Your task to perform on an android device: Search for flights from Buenos aires to Helsinki Image 0: 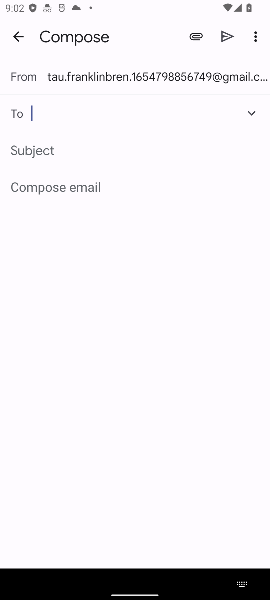
Step 0: press home button
Your task to perform on an android device: Search for flights from Buenos aires to Helsinki Image 1: 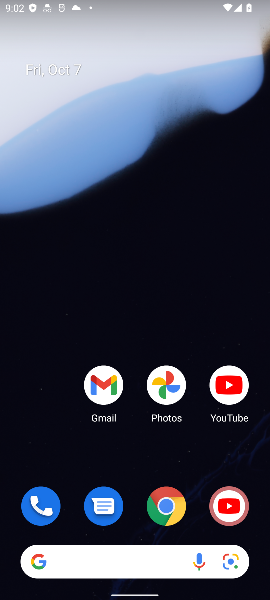
Step 1: click (170, 504)
Your task to perform on an android device: Search for flights from Buenos aires to Helsinki Image 2: 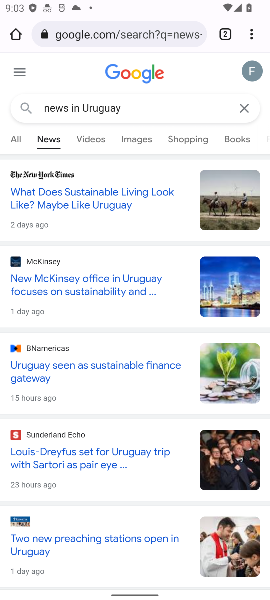
Step 2: click (181, 30)
Your task to perform on an android device: Search for flights from Buenos aires to Helsinki Image 3: 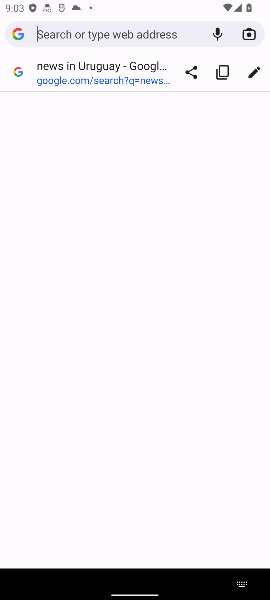
Step 3: type "flights from Buenos aires to Helsinki"
Your task to perform on an android device: Search for flights from Buenos aires to Helsinki Image 4: 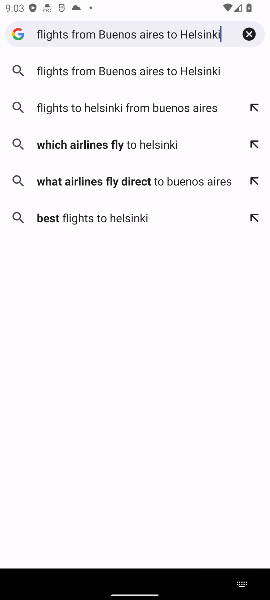
Step 4: click (95, 71)
Your task to perform on an android device: Search for flights from Buenos aires to Helsinki Image 5: 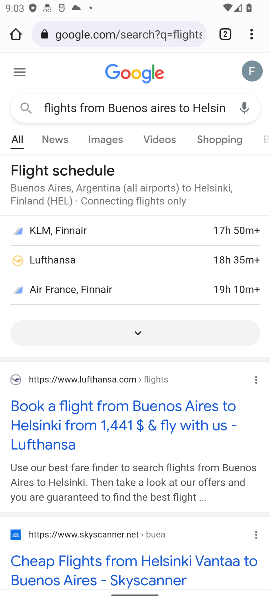
Step 5: click (137, 328)
Your task to perform on an android device: Search for flights from Buenos aires to Helsinki Image 6: 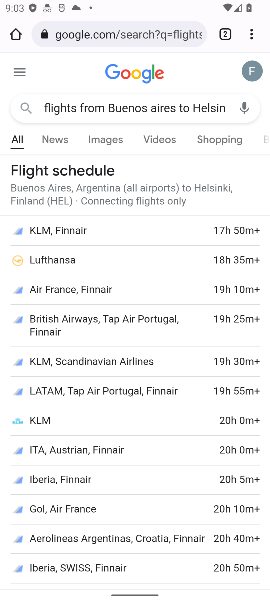
Step 6: task complete